Your task to perform on an android device: Open battery settings Image 0: 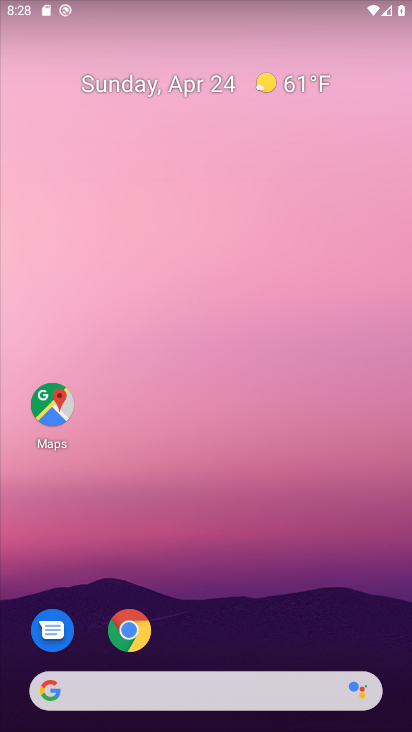
Step 0: drag from (344, 622) to (324, 94)
Your task to perform on an android device: Open battery settings Image 1: 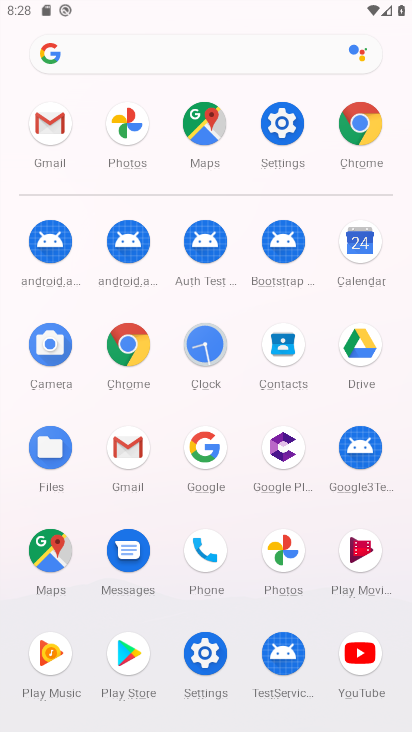
Step 1: click (284, 124)
Your task to perform on an android device: Open battery settings Image 2: 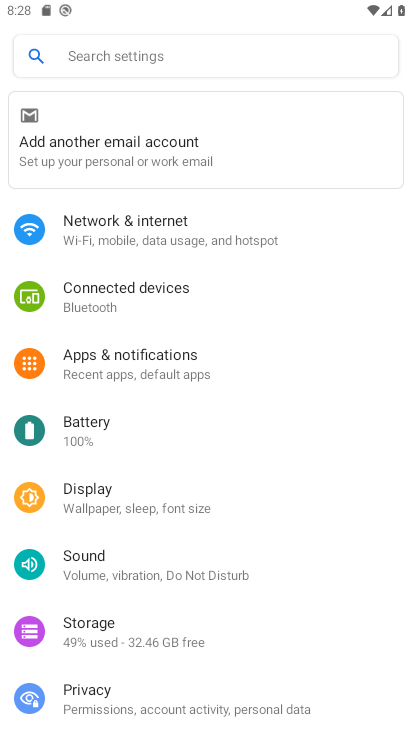
Step 2: drag from (310, 607) to (313, 432)
Your task to perform on an android device: Open battery settings Image 3: 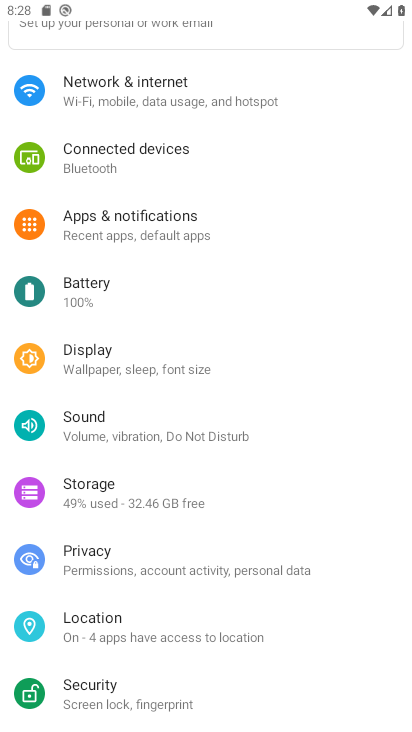
Step 3: drag from (335, 639) to (351, 402)
Your task to perform on an android device: Open battery settings Image 4: 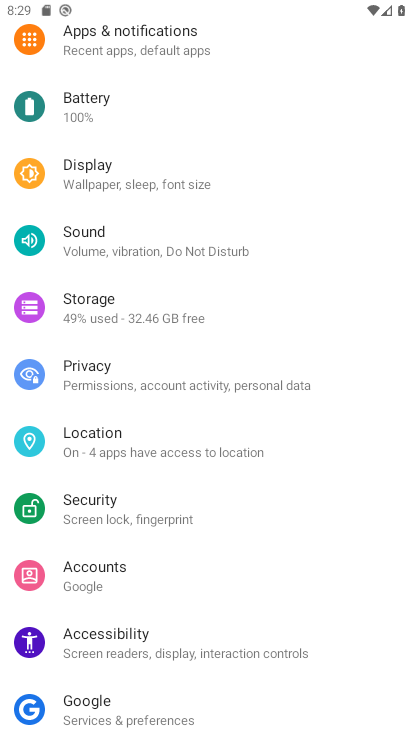
Step 4: drag from (344, 652) to (355, 408)
Your task to perform on an android device: Open battery settings Image 5: 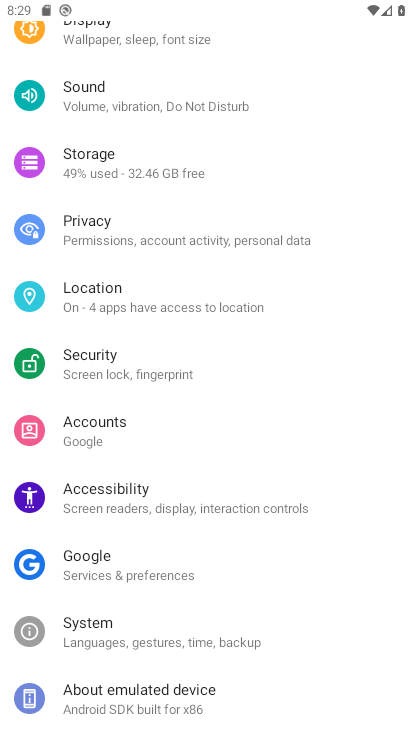
Step 5: drag from (334, 670) to (336, 413)
Your task to perform on an android device: Open battery settings Image 6: 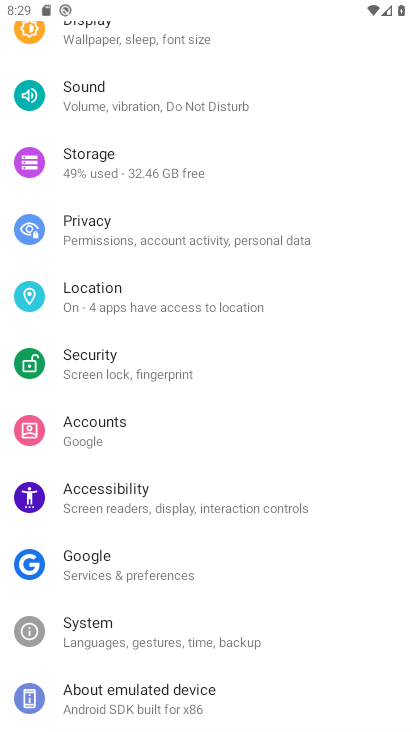
Step 6: drag from (345, 348) to (360, 487)
Your task to perform on an android device: Open battery settings Image 7: 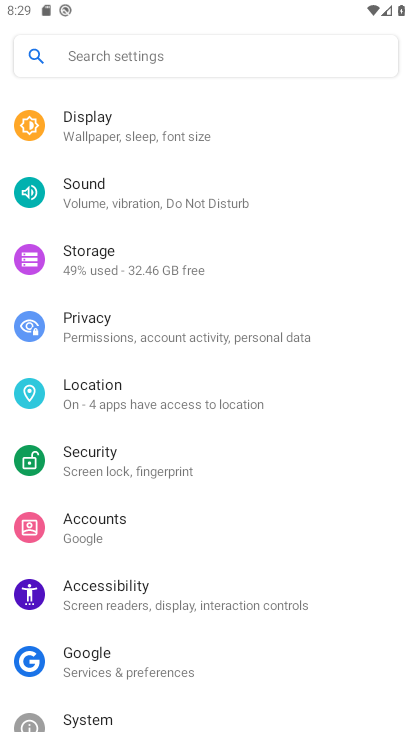
Step 7: drag from (345, 317) to (351, 483)
Your task to perform on an android device: Open battery settings Image 8: 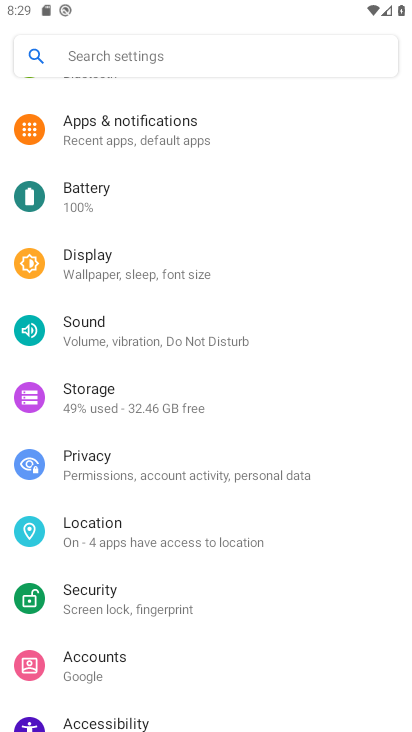
Step 8: drag from (341, 311) to (349, 478)
Your task to perform on an android device: Open battery settings Image 9: 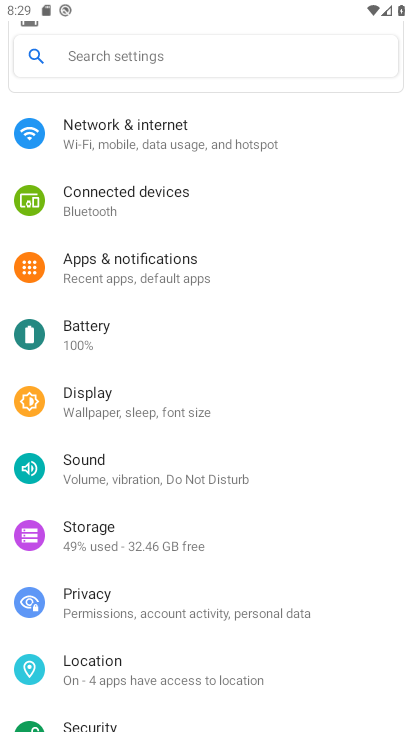
Step 9: drag from (340, 291) to (332, 451)
Your task to perform on an android device: Open battery settings Image 10: 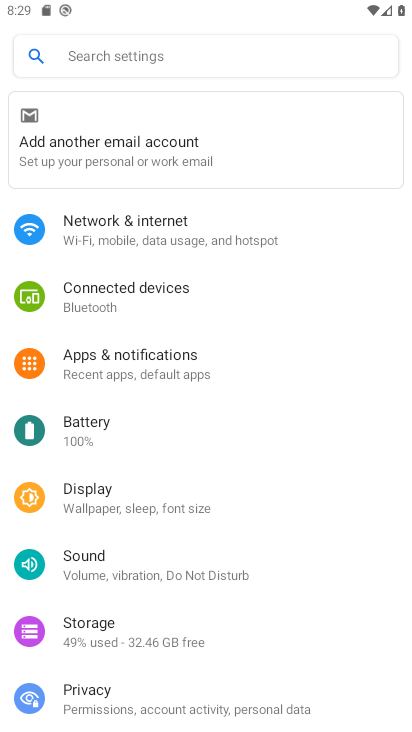
Step 10: click (162, 439)
Your task to perform on an android device: Open battery settings Image 11: 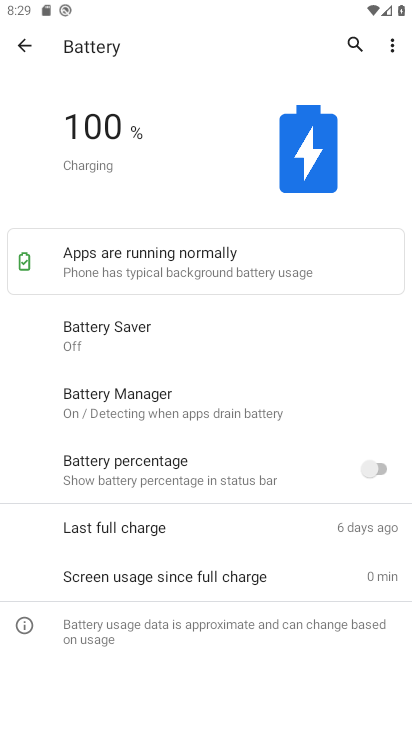
Step 11: task complete